Your task to perform on an android device: turn off improve location accuracy Image 0: 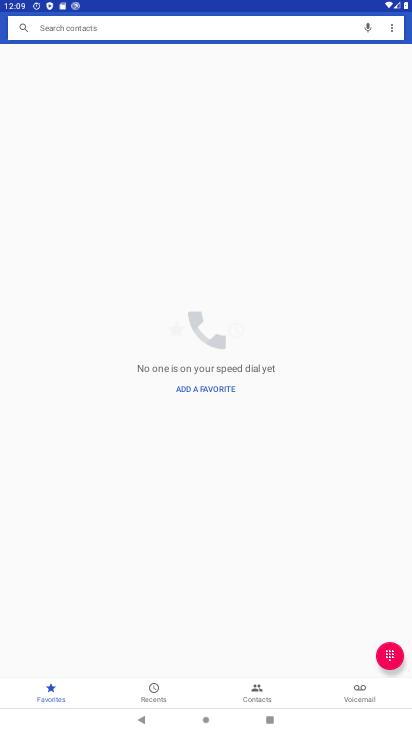
Step 0: drag from (199, 573) to (197, 90)
Your task to perform on an android device: turn off improve location accuracy Image 1: 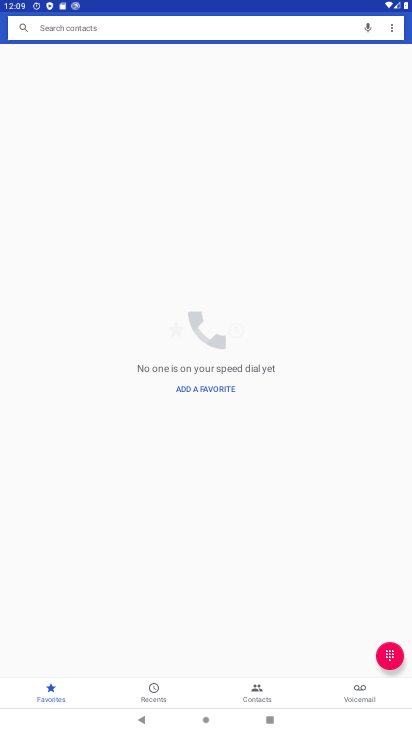
Step 1: press back button
Your task to perform on an android device: turn off improve location accuracy Image 2: 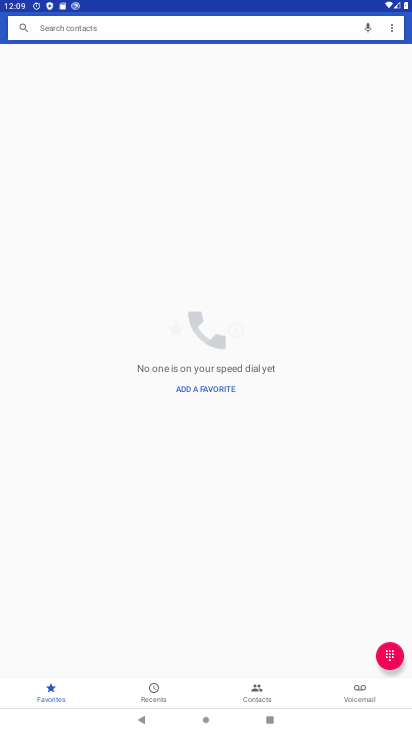
Step 2: press back button
Your task to perform on an android device: turn off improve location accuracy Image 3: 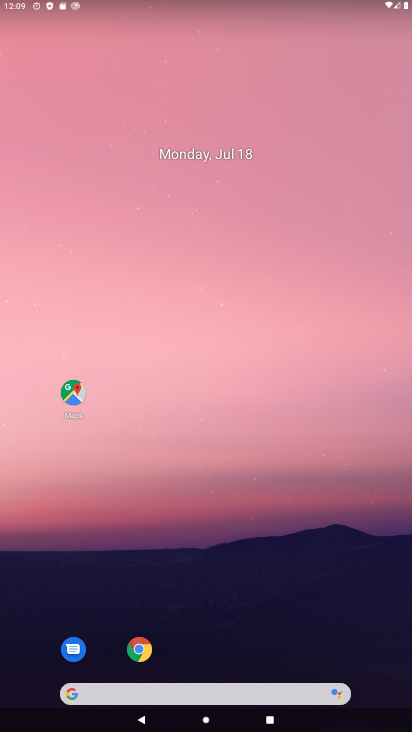
Step 3: drag from (179, 660) to (178, 228)
Your task to perform on an android device: turn off improve location accuracy Image 4: 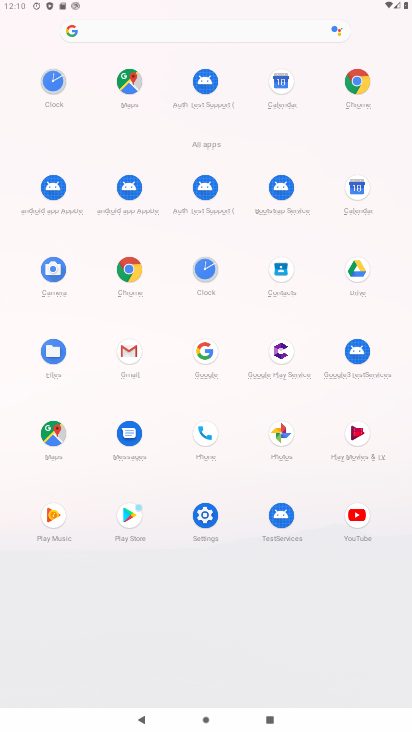
Step 4: click (203, 521)
Your task to perform on an android device: turn off improve location accuracy Image 5: 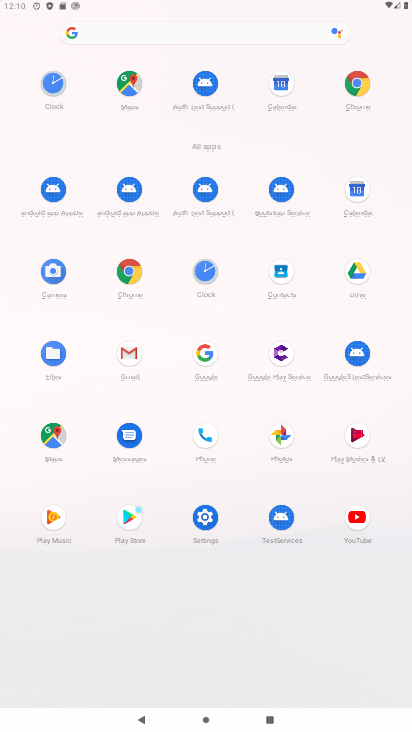
Step 5: click (204, 532)
Your task to perform on an android device: turn off improve location accuracy Image 6: 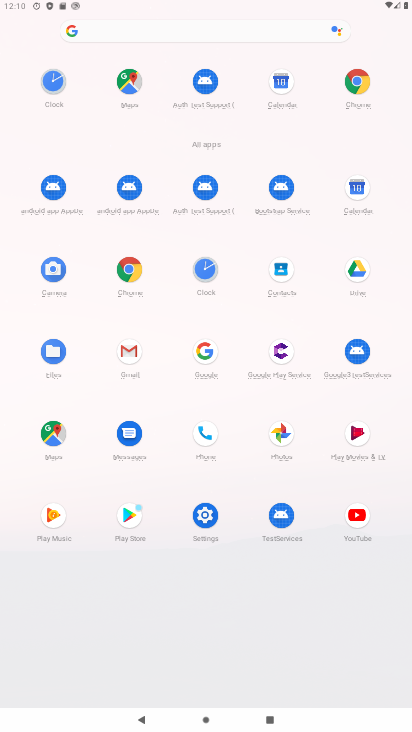
Step 6: click (204, 532)
Your task to perform on an android device: turn off improve location accuracy Image 7: 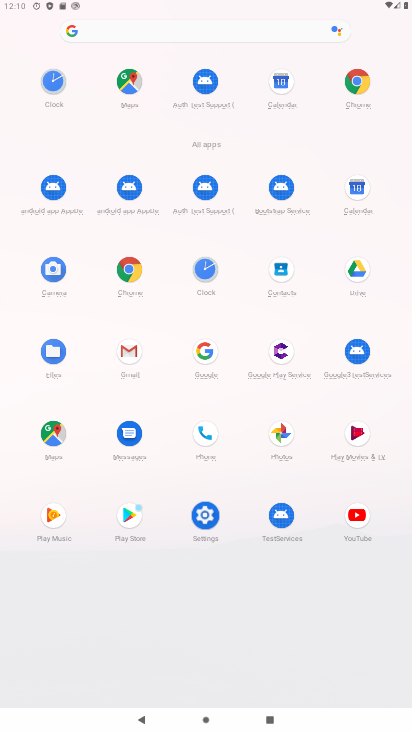
Step 7: click (209, 520)
Your task to perform on an android device: turn off improve location accuracy Image 8: 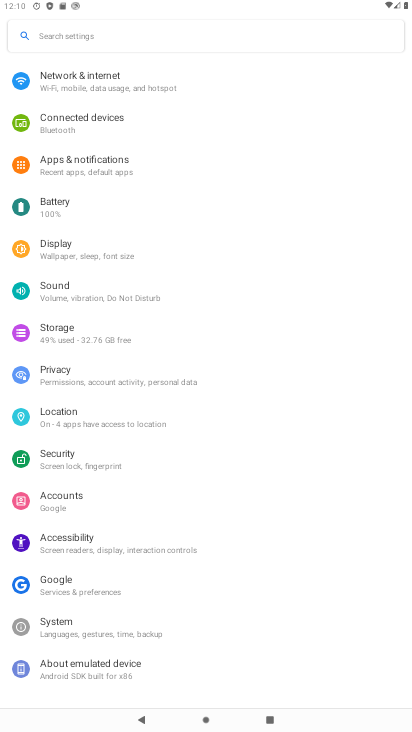
Step 8: click (207, 514)
Your task to perform on an android device: turn off improve location accuracy Image 9: 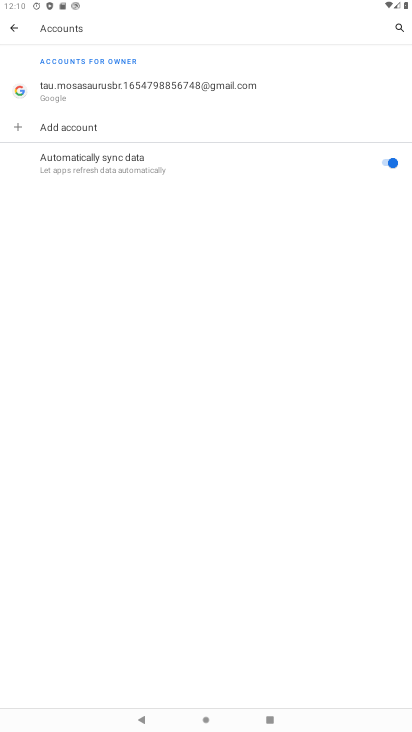
Step 9: click (53, 433)
Your task to perform on an android device: turn off improve location accuracy Image 10: 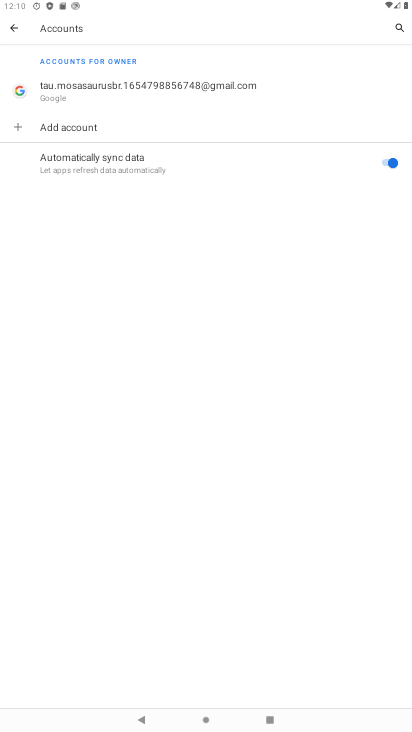
Step 10: click (11, 26)
Your task to perform on an android device: turn off improve location accuracy Image 11: 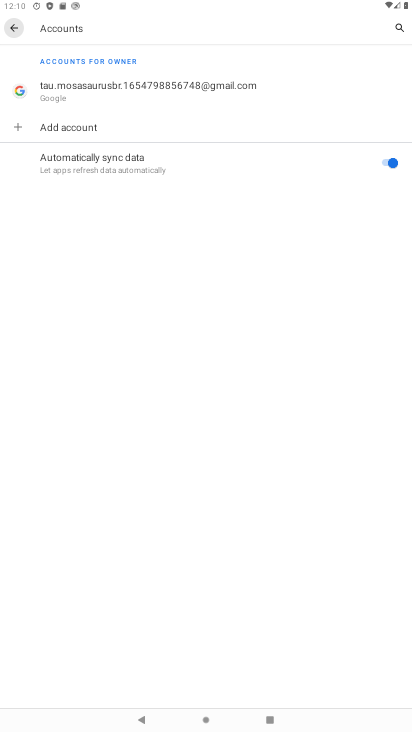
Step 11: click (11, 26)
Your task to perform on an android device: turn off improve location accuracy Image 12: 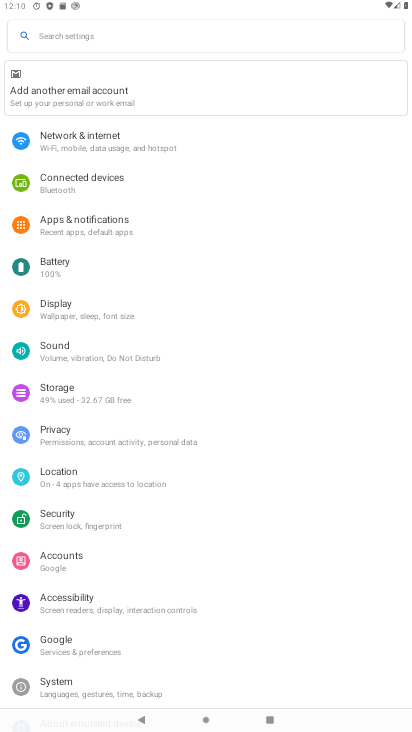
Step 12: click (77, 476)
Your task to perform on an android device: turn off improve location accuracy Image 13: 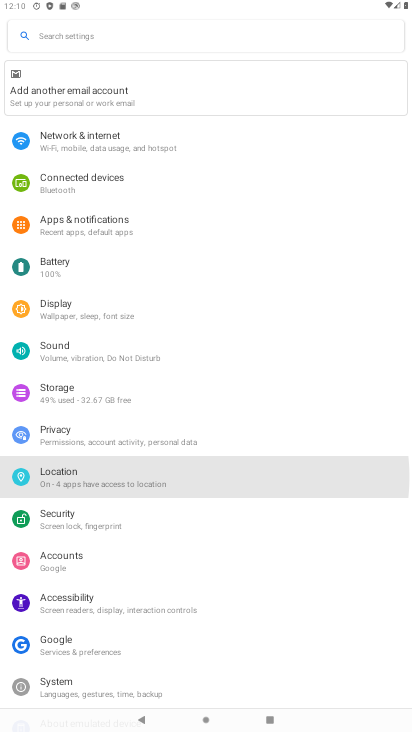
Step 13: click (80, 474)
Your task to perform on an android device: turn off improve location accuracy Image 14: 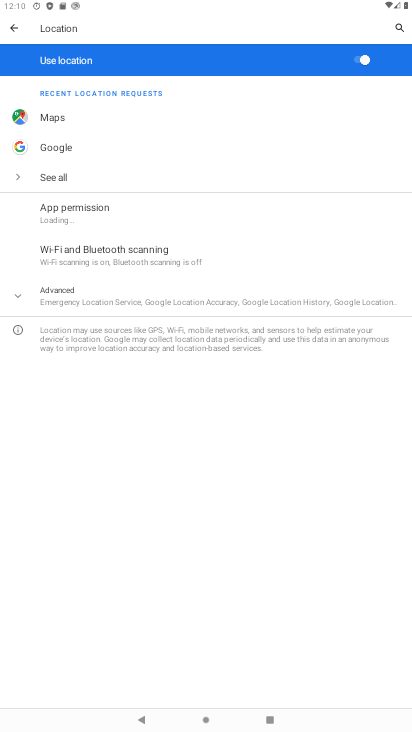
Step 14: click (63, 293)
Your task to perform on an android device: turn off improve location accuracy Image 15: 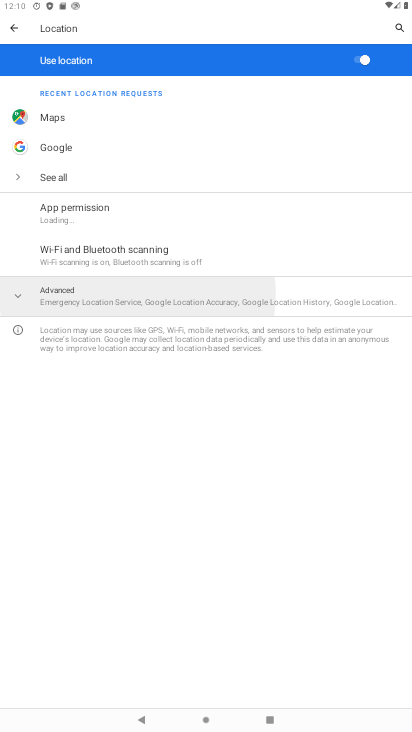
Step 15: click (63, 293)
Your task to perform on an android device: turn off improve location accuracy Image 16: 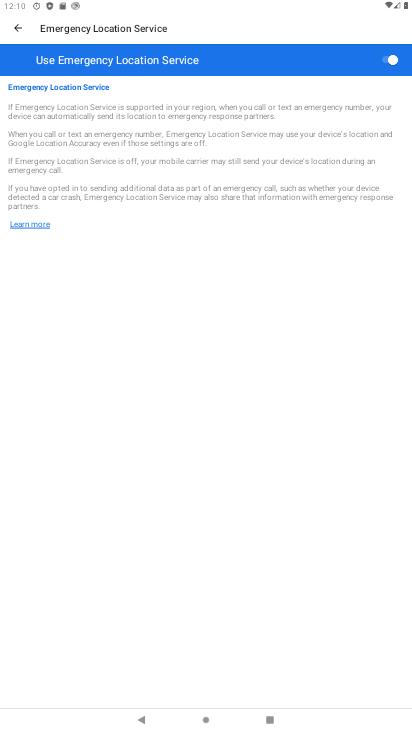
Step 16: click (7, 17)
Your task to perform on an android device: turn off improve location accuracy Image 17: 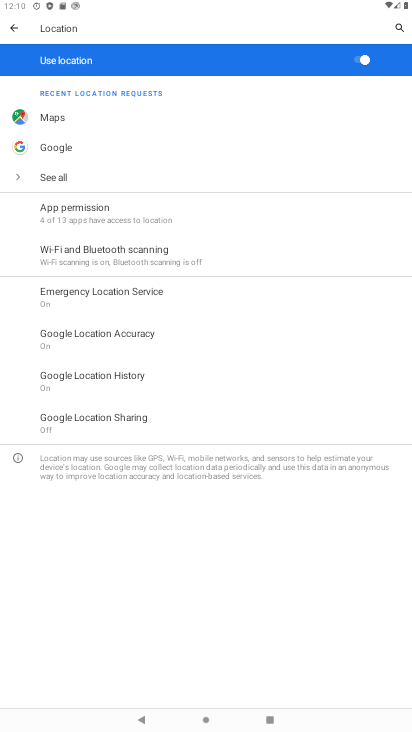
Step 17: click (115, 342)
Your task to perform on an android device: turn off improve location accuracy Image 18: 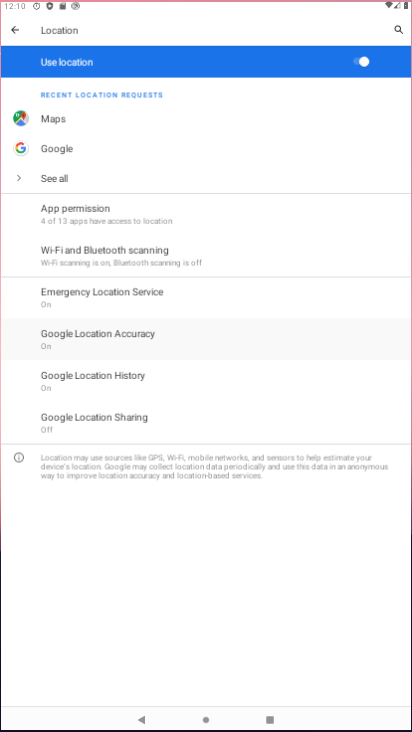
Step 18: click (112, 335)
Your task to perform on an android device: turn off improve location accuracy Image 19: 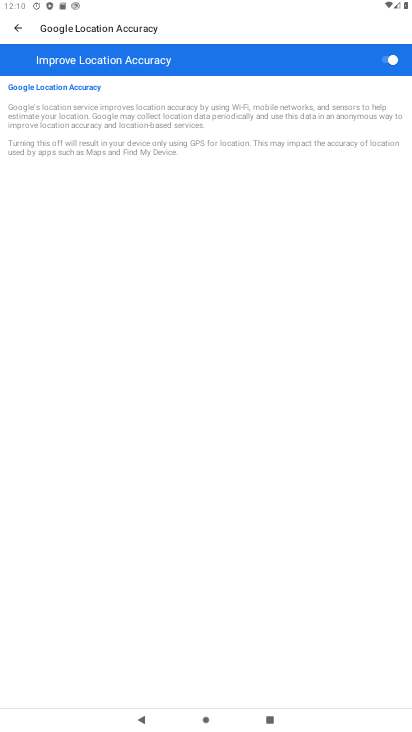
Step 19: click (114, 333)
Your task to perform on an android device: turn off improve location accuracy Image 20: 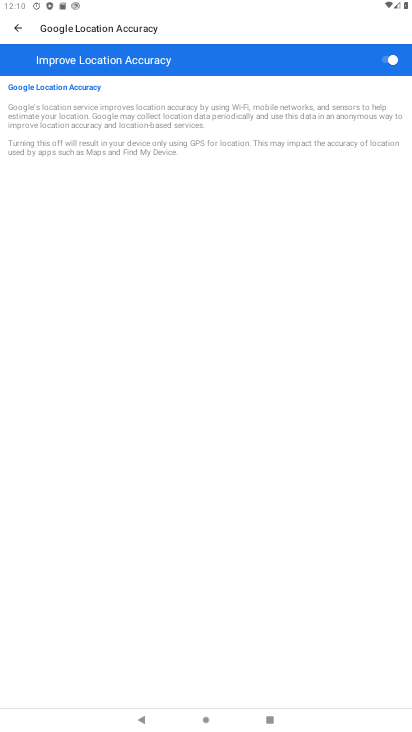
Step 20: click (402, 59)
Your task to perform on an android device: turn off improve location accuracy Image 21: 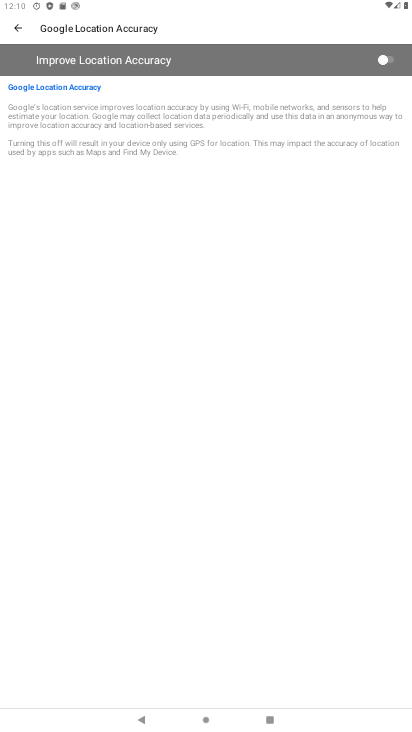
Step 21: task complete